Your task to perform on an android device: turn on notifications settings in the gmail app Image 0: 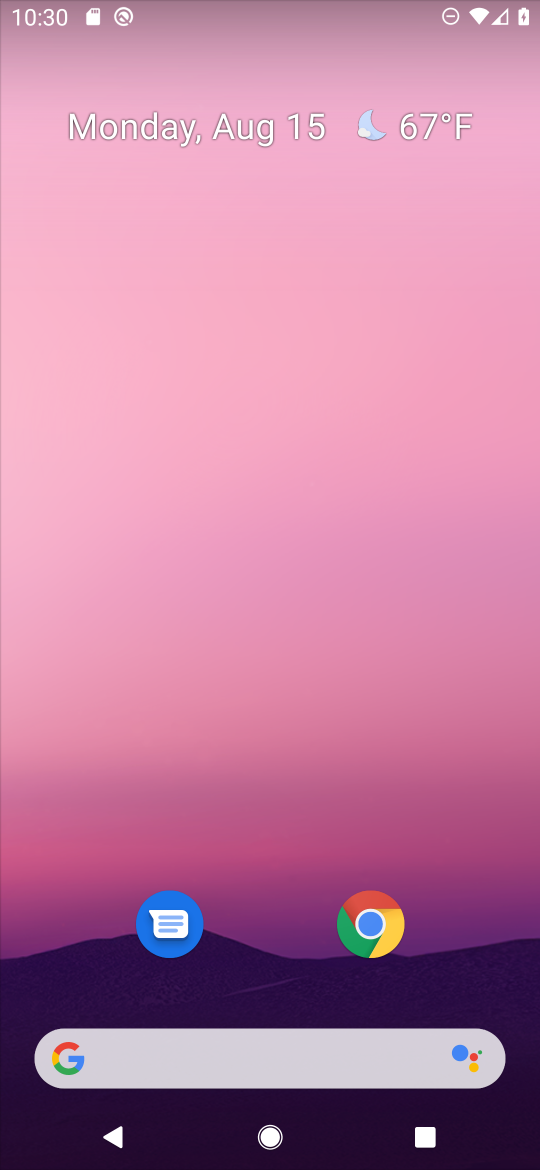
Step 0: drag from (507, 983) to (482, 66)
Your task to perform on an android device: turn on notifications settings in the gmail app Image 1: 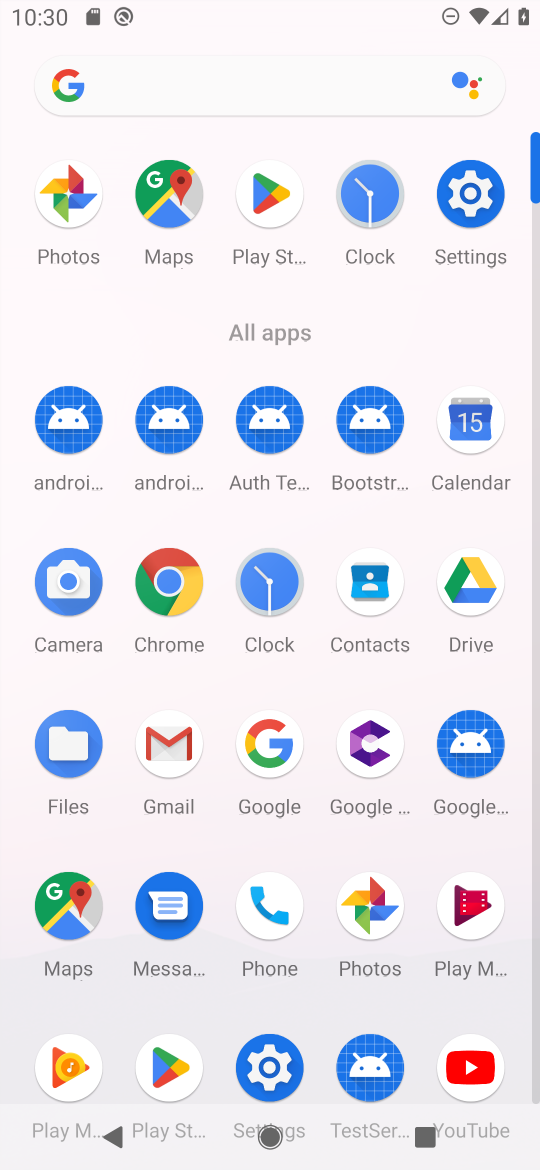
Step 1: click (167, 746)
Your task to perform on an android device: turn on notifications settings in the gmail app Image 2: 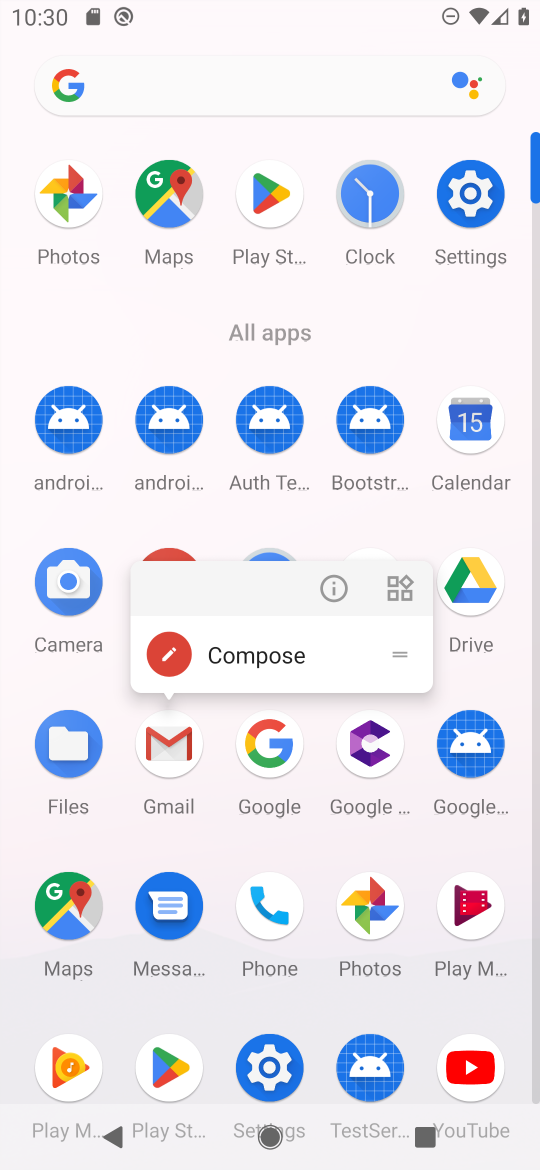
Step 2: click (168, 837)
Your task to perform on an android device: turn on notifications settings in the gmail app Image 3: 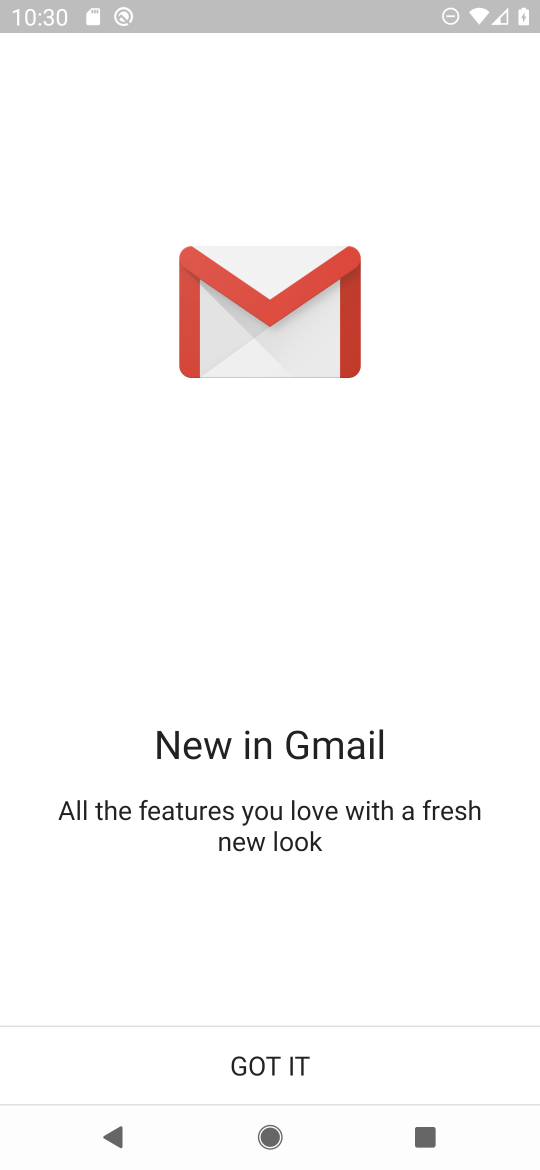
Step 3: click (168, 745)
Your task to perform on an android device: turn on notifications settings in the gmail app Image 4: 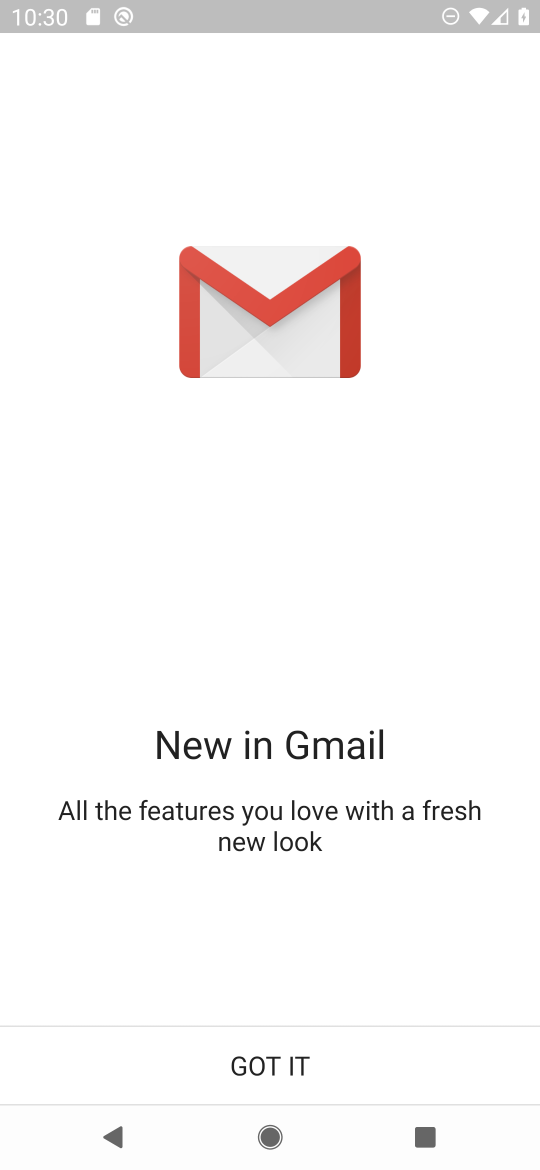
Step 4: click (280, 1047)
Your task to perform on an android device: turn on notifications settings in the gmail app Image 5: 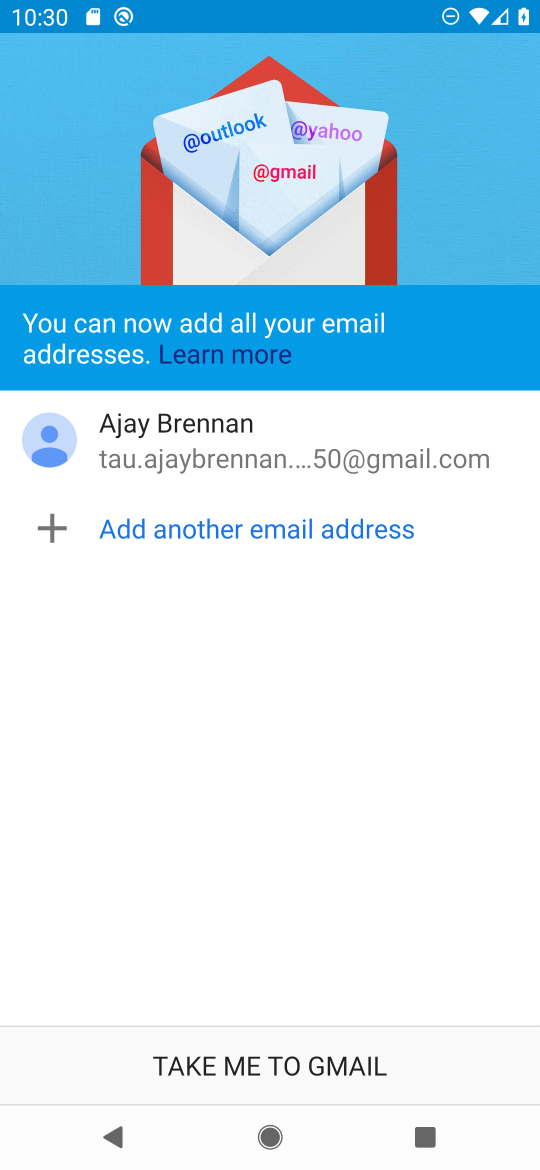
Step 5: click (280, 1047)
Your task to perform on an android device: turn on notifications settings in the gmail app Image 6: 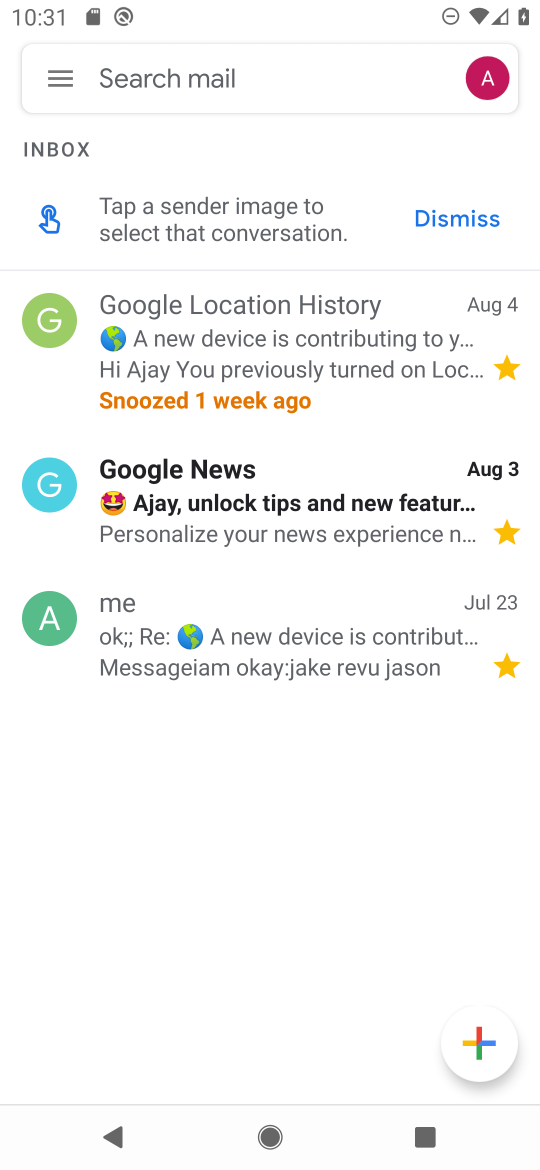
Step 6: click (62, 83)
Your task to perform on an android device: turn on notifications settings in the gmail app Image 7: 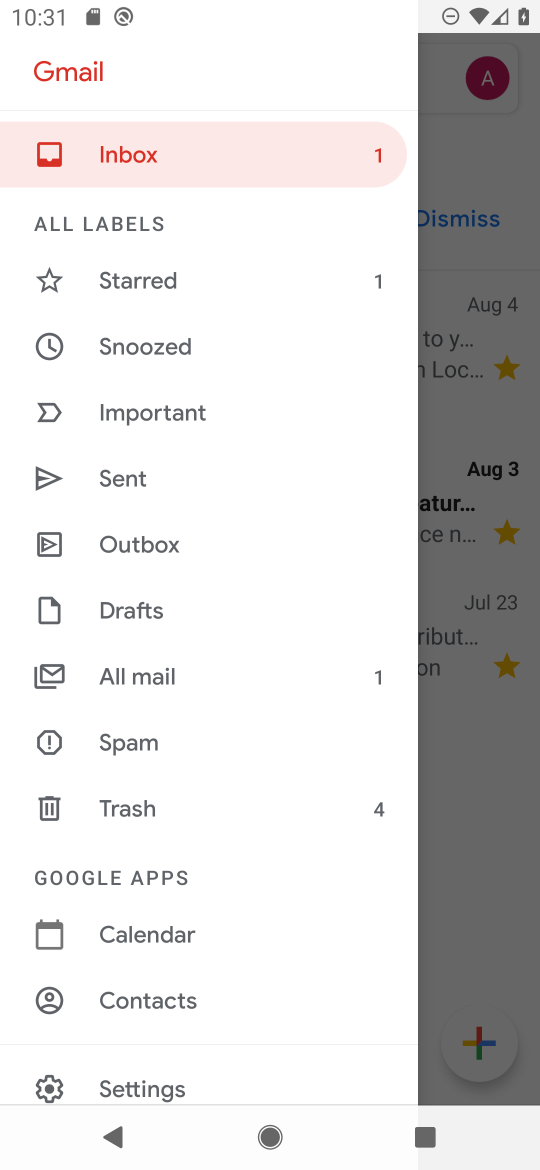
Step 7: drag from (256, 1006) to (273, 495)
Your task to perform on an android device: turn on notifications settings in the gmail app Image 8: 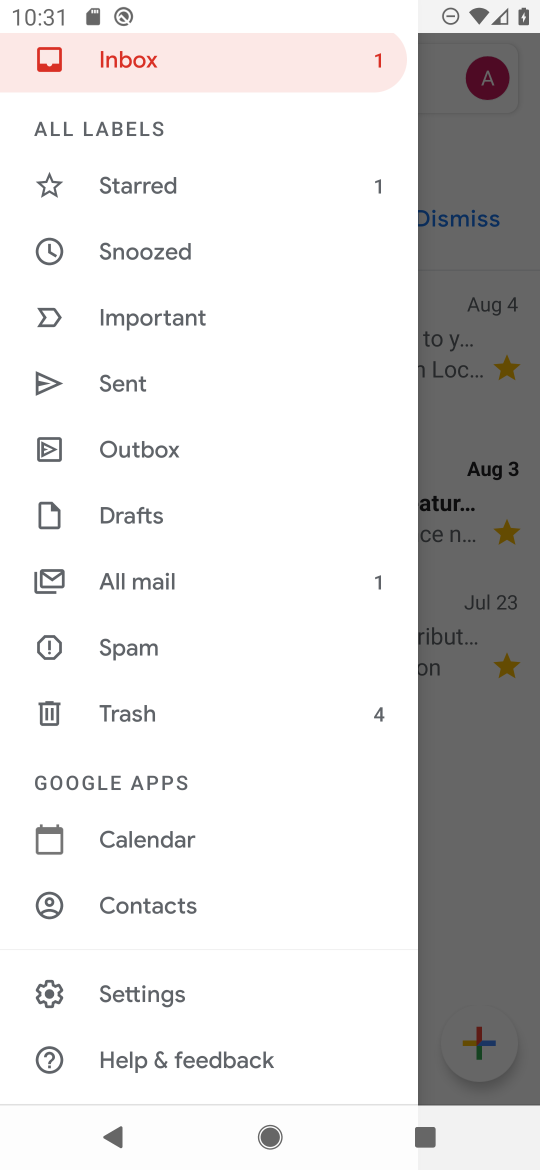
Step 8: click (131, 987)
Your task to perform on an android device: turn on notifications settings in the gmail app Image 9: 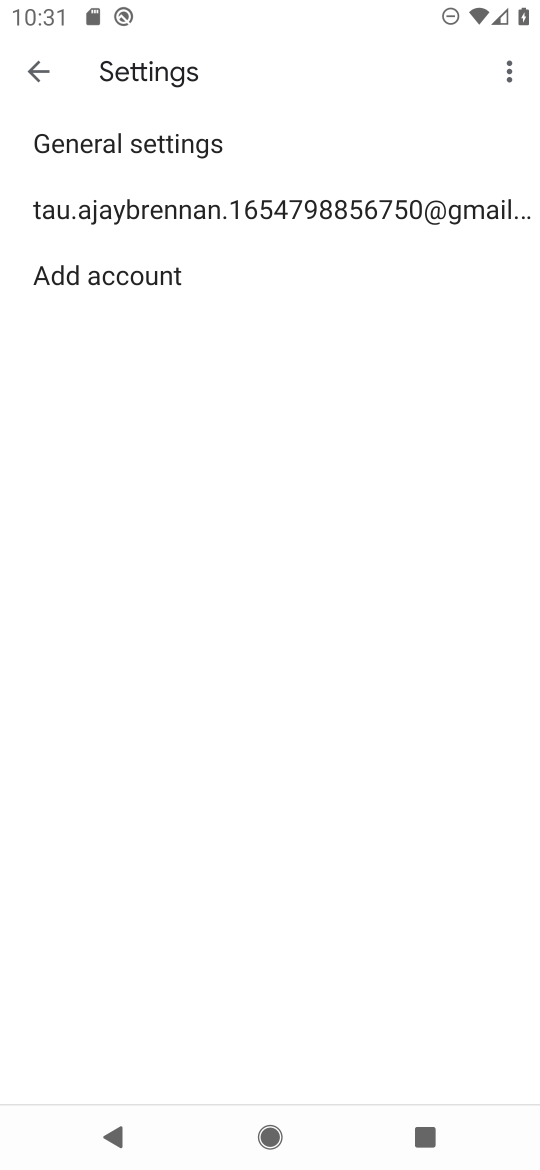
Step 9: click (202, 211)
Your task to perform on an android device: turn on notifications settings in the gmail app Image 10: 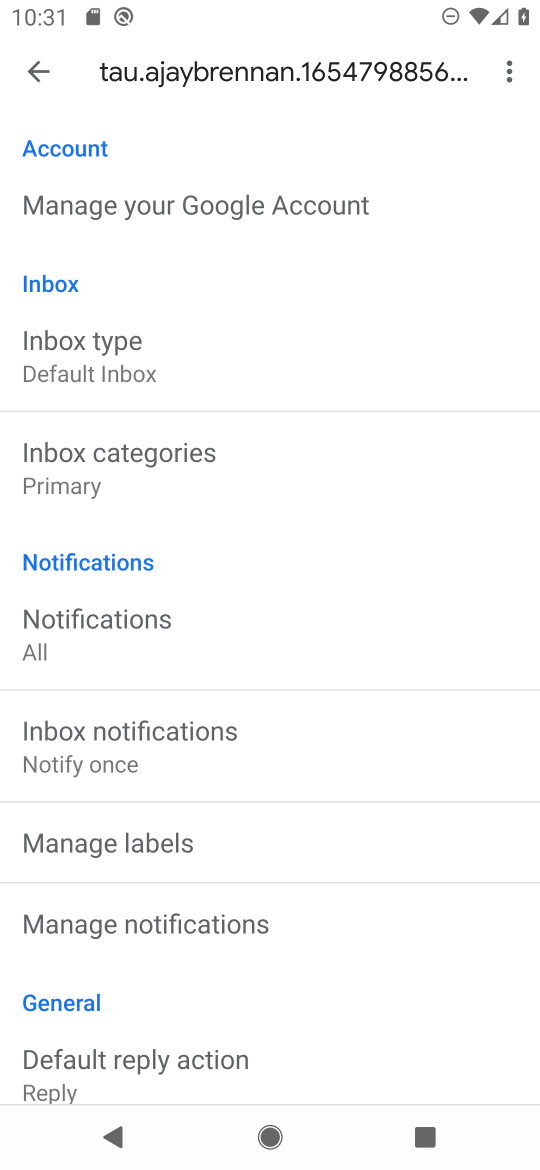
Step 10: click (232, 916)
Your task to perform on an android device: turn on notifications settings in the gmail app Image 11: 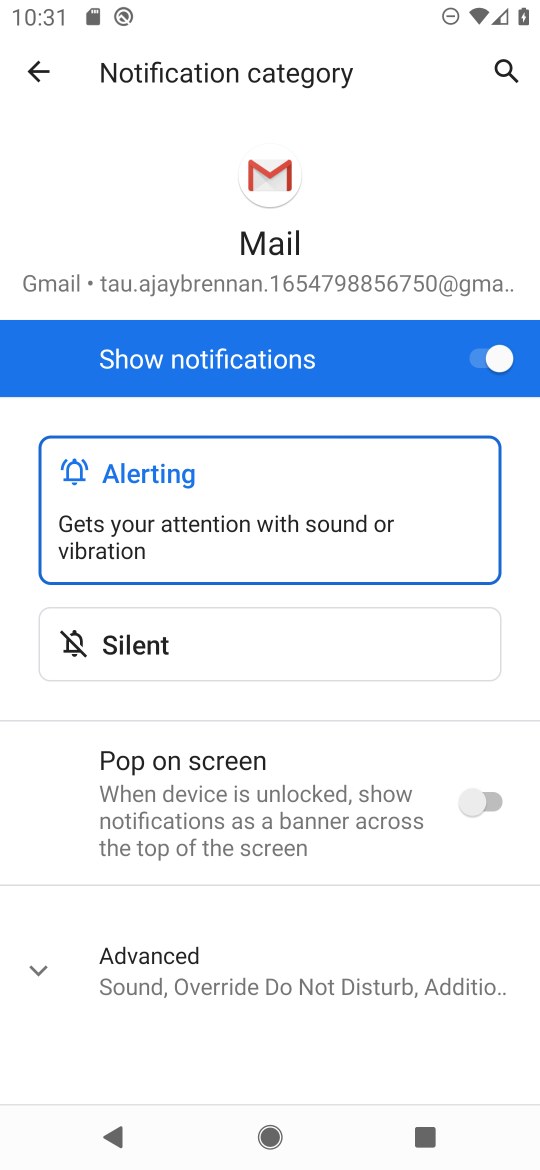
Step 11: task complete